Your task to perform on an android device: Go to ESPN.com Image 0: 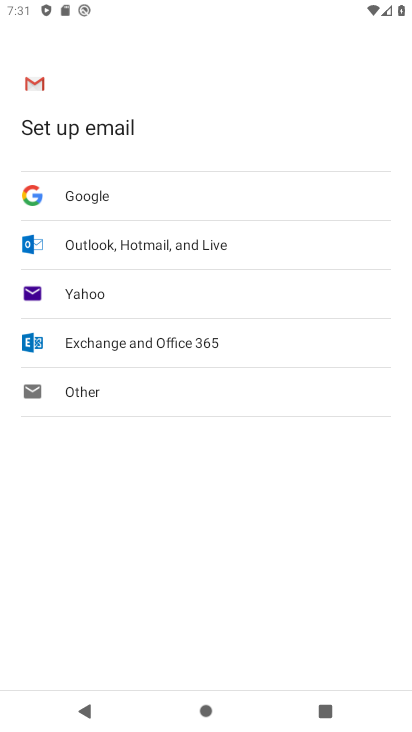
Step 0: press home button
Your task to perform on an android device: Go to ESPN.com Image 1: 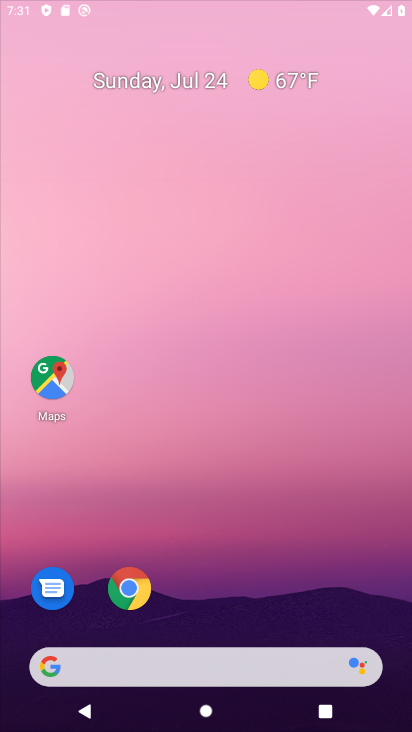
Step 1: drag from (125, 576) to (149, 341)
Your task to perform on an android device: Go to ESPN.com Image 2: 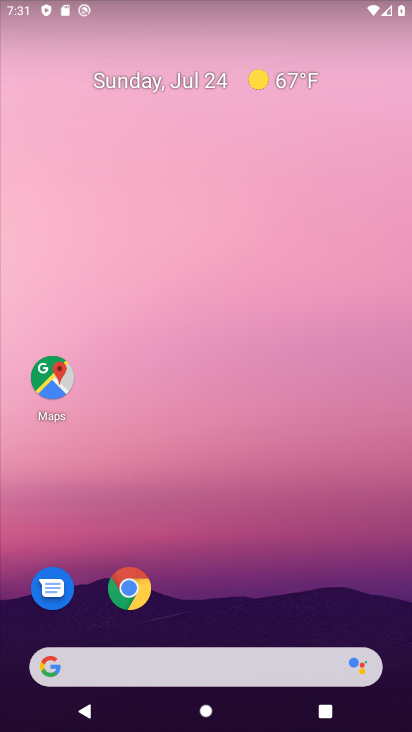
Step 2: drag from (175, 646) to (258, 304)
Your task to perform on an android device: Go to ESPN.com Image 3: 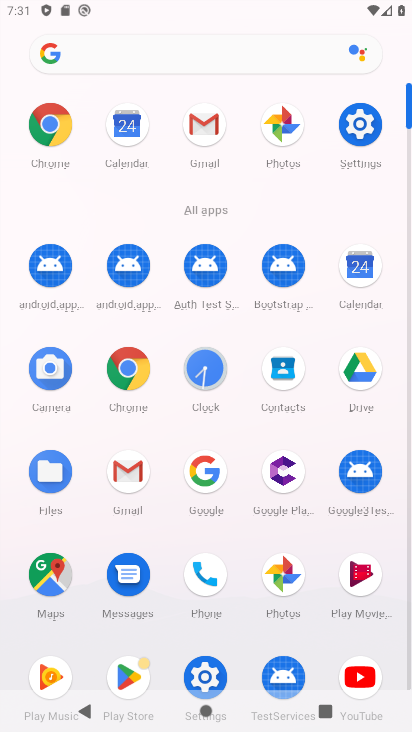
Step 3: click (52, 133)
Your task to perform on an android device: Go to ESPN.com Image 4: 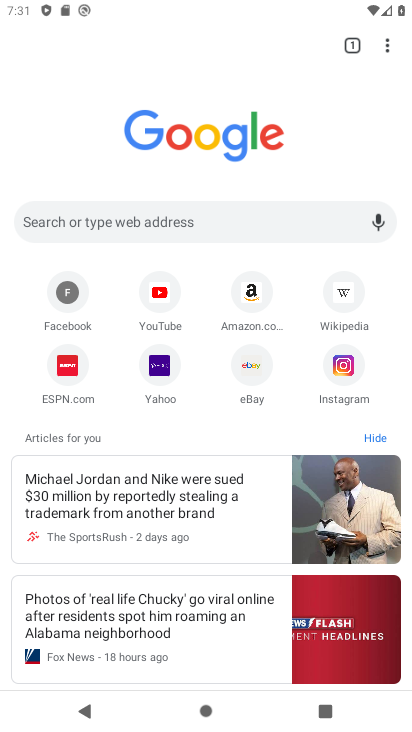
Step 4: click (71, 361)
Your task to perform on an android device: Go to ESPN.com Image 5: 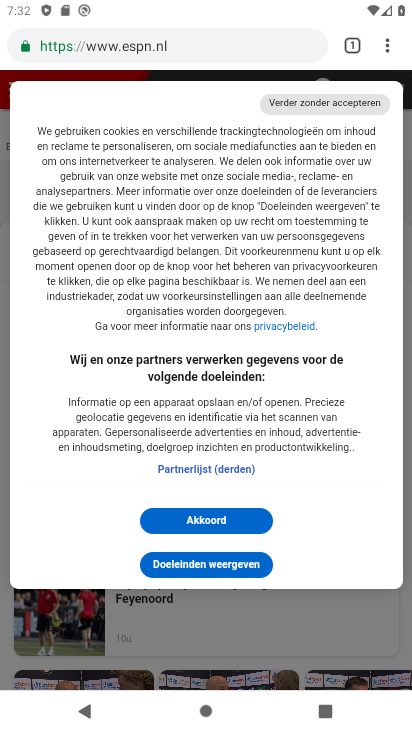
Step 5: task complete